Your task to perform on an android device: See recent photos Image 0: 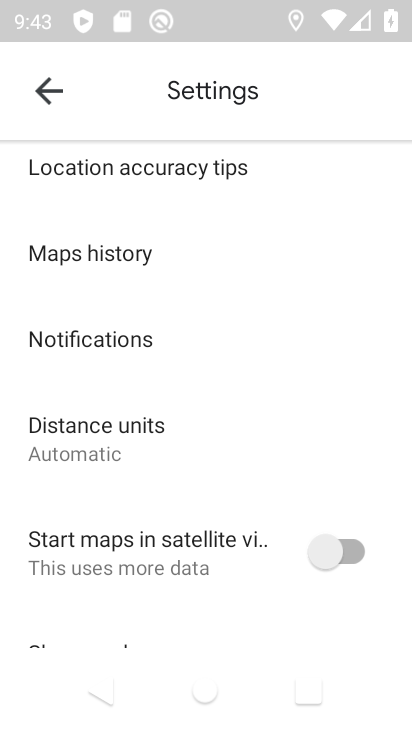
Step 0: press home button
Your task to perform on an android device: See recent photos Image 1: 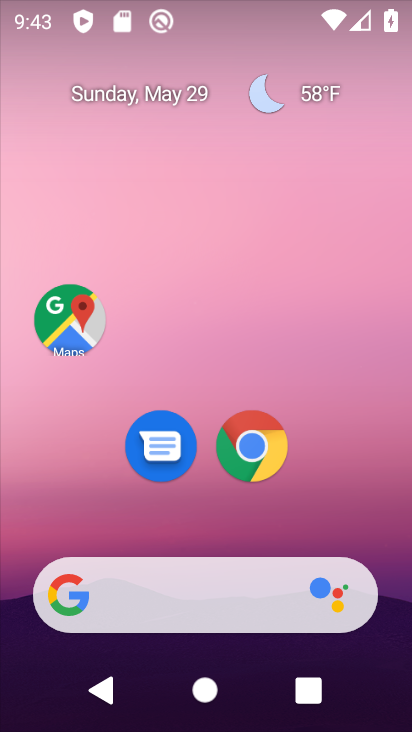
Step 1: drag from (202, 569) to (273, 74)
Your task to perform on an android device: See recent photos Image 2: 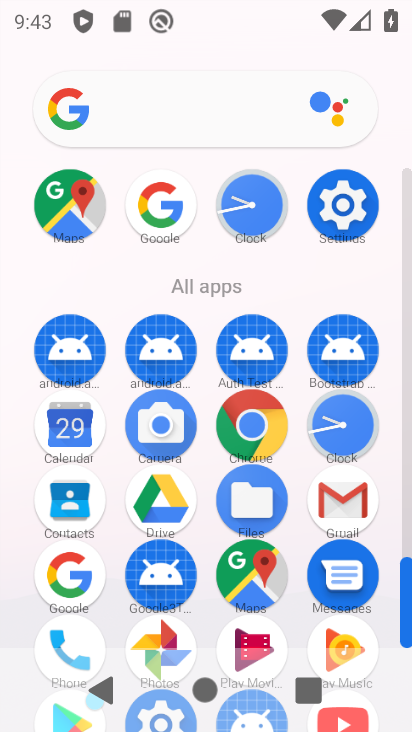
Step 2: click (161, 638)
Your task to perform on an android device: See recent photos Image 3: 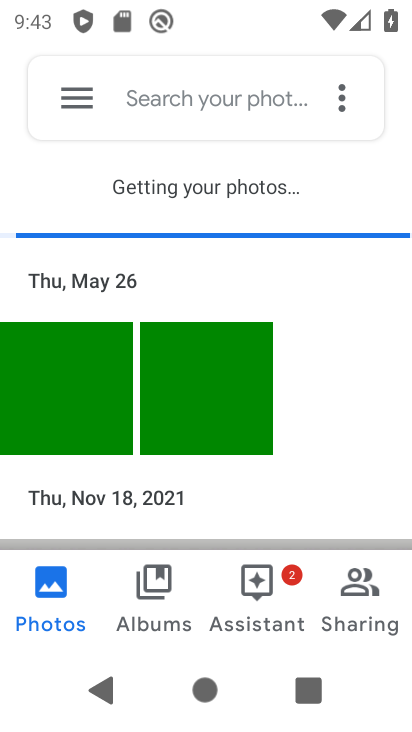
Step 3: click (79, 393)
Your task to perform on an android device: See recent photos Image 4: 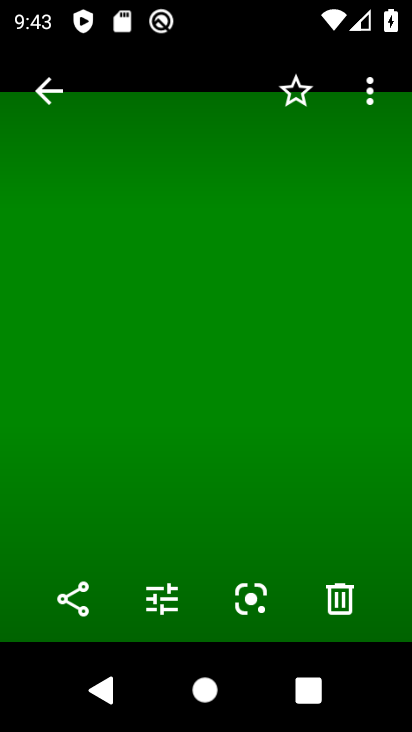
Step 4: task complete